Your task to perform on an android device: Open Youtube and go to the subscriptions tab Image 0: 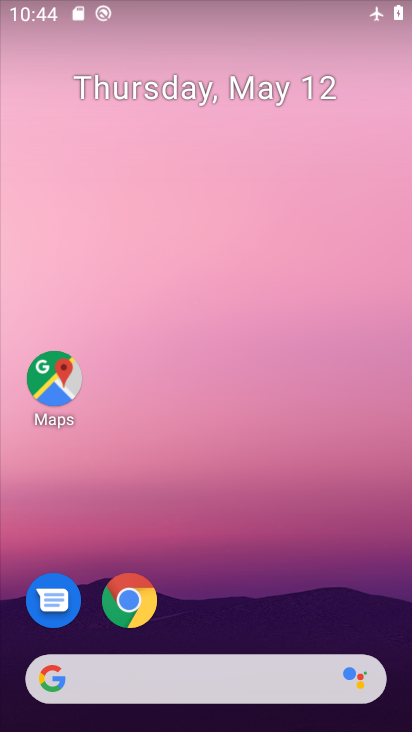
Step 0: drag from (202, 609) to (55, 135)
Your task to perform on an android device: Open Youtube and go to the subscriptions tab Image 1: 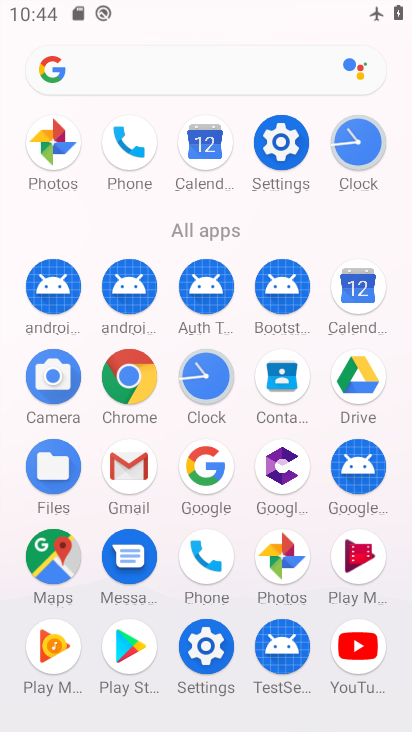
Step 1: click (371, 636)
Your task to perform on an android device: Open Youtube and go to the subscriptions tab Image 2: 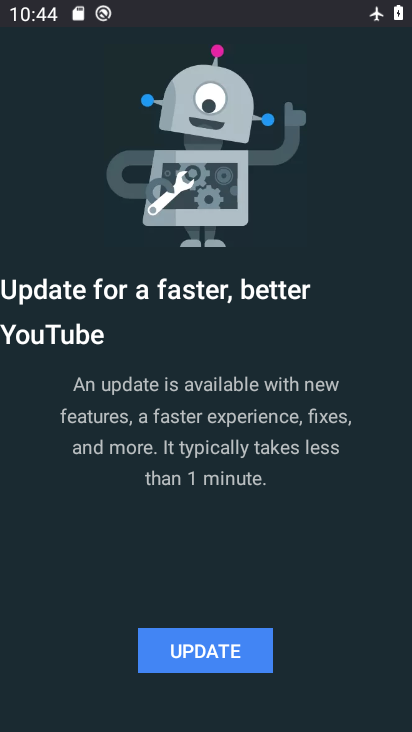
Step 2: click (190, 659)
Your task to perform on an android device: Open Youtube and go to the subscriptions tab Image 3: 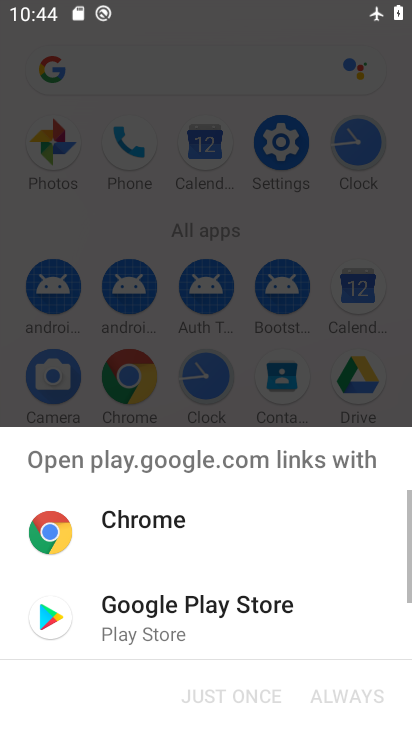
Step 3: click (186, 634)
Your task to perform on an android device: Open Youtube and go to the subscriptions tab Image 4: 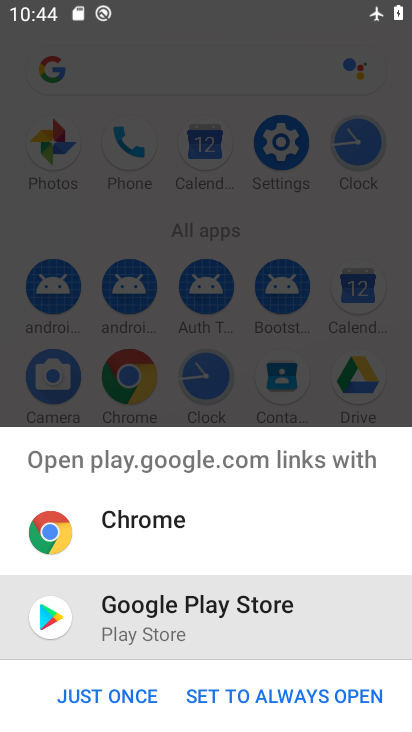
Step 4: click (161, 699)
Your task to perform on an android device: Open Youtube and go to the subscriptions tab Image 5: 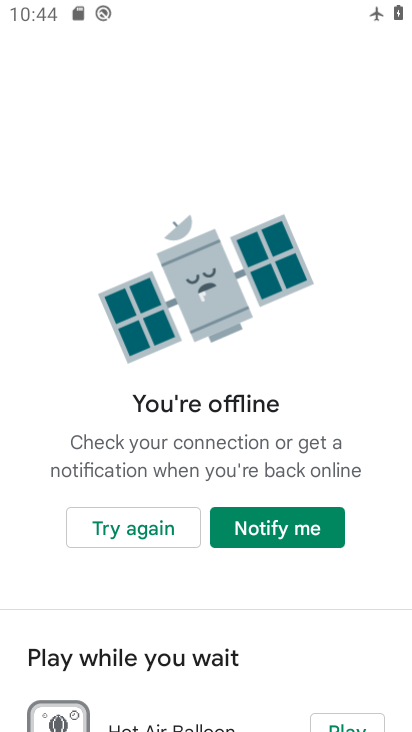
Step 5: click (146, 534)
Your task to perform on an android device: Open Youtube and go to the subscriptions tab Image 6: 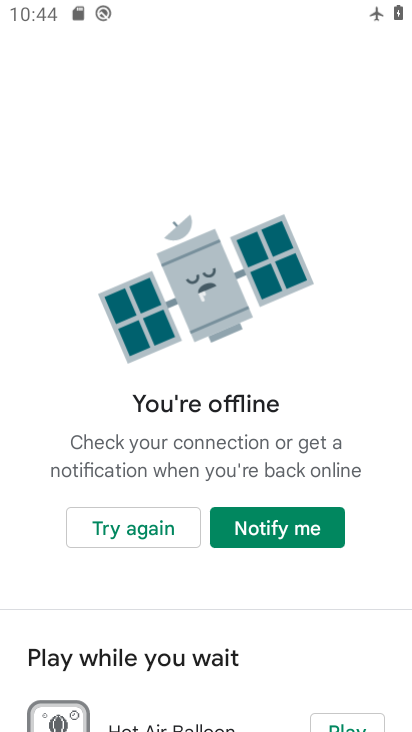
Step 6: click (146, 534)
Your task to perform on an android device: Open Youtube and go to the subscriptions tab Image 7: 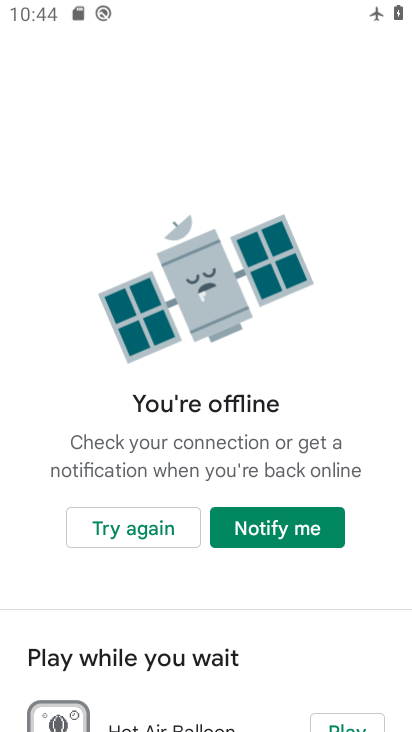
Step 7: press back button
Your task to perform on an android device: Open Youtube and go to the subscriptions tab Image 8: 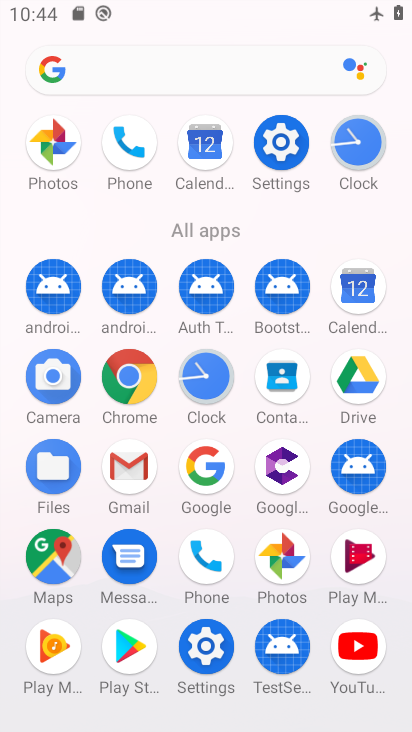
Step 8: click (350, 672)
Your task to perform on an android device: Open Youtube and go to the subscriptions tab Image 9: 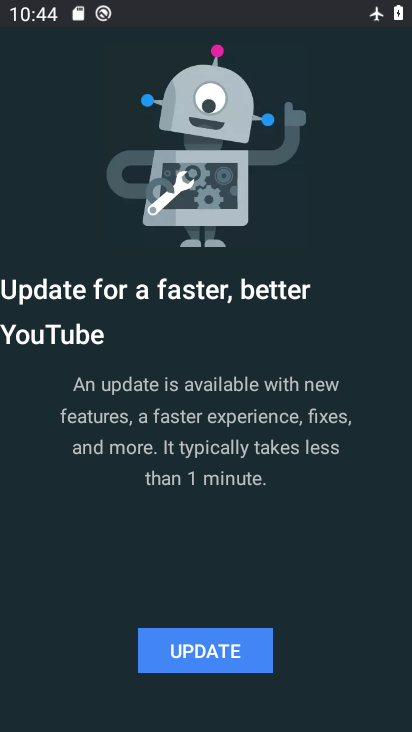
Step 9: task complete